Your task to perform on an android device: open app "Messenger Lite" (install if not already installed) Image 0: 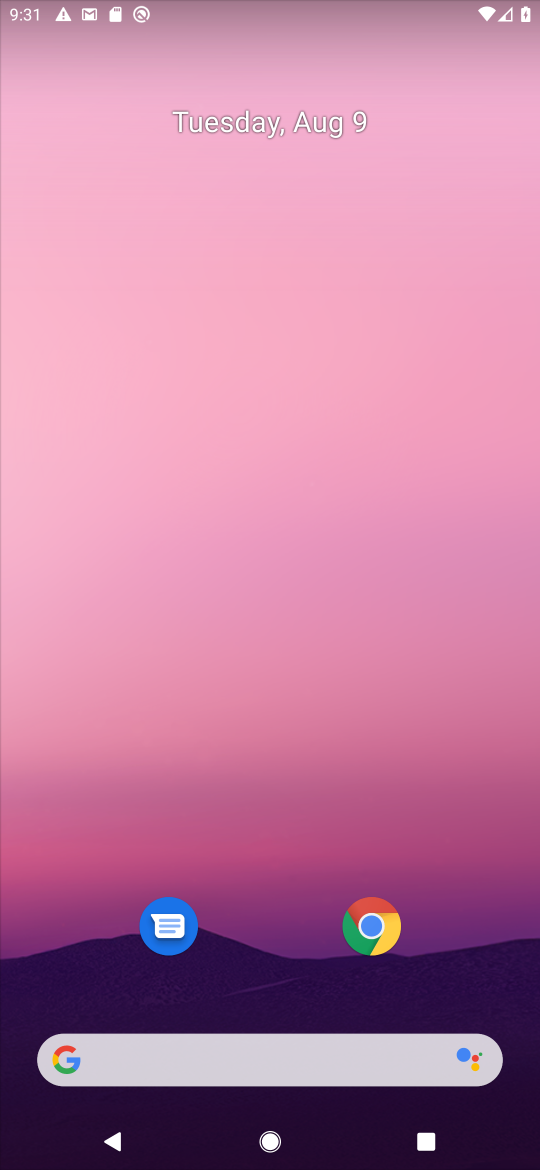
Step 0: drag from (240, 1005) to (338, 431)
Your task to perform on an android device: open app "Messenger Lite" (install if not already installed) Image 1: 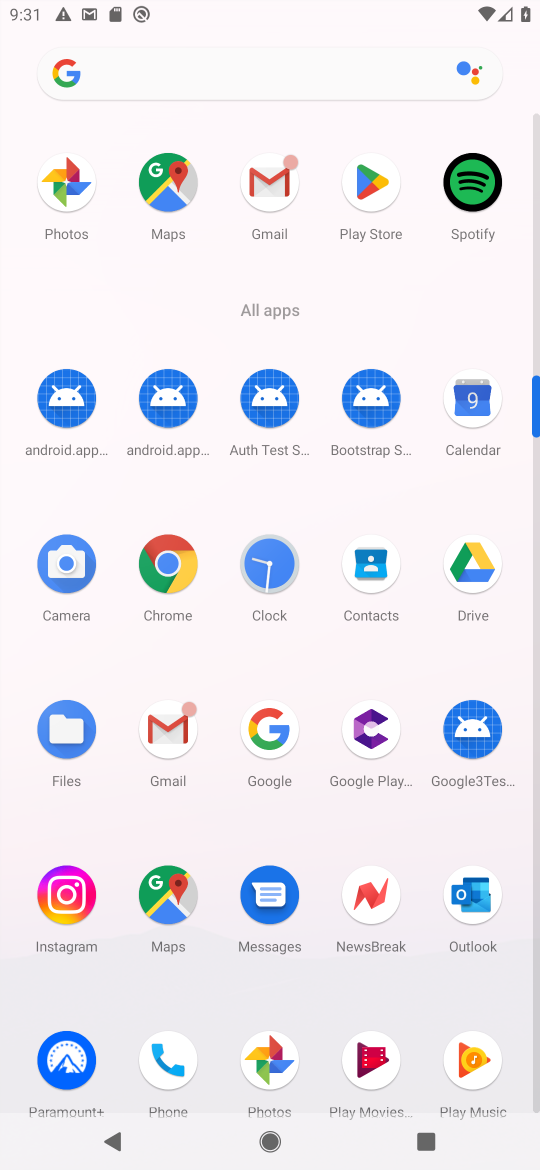
Step 1: click (369, 215)
Your task to perform on an android device: open app "Messenger Lite" (install if not already installed) Image 2: 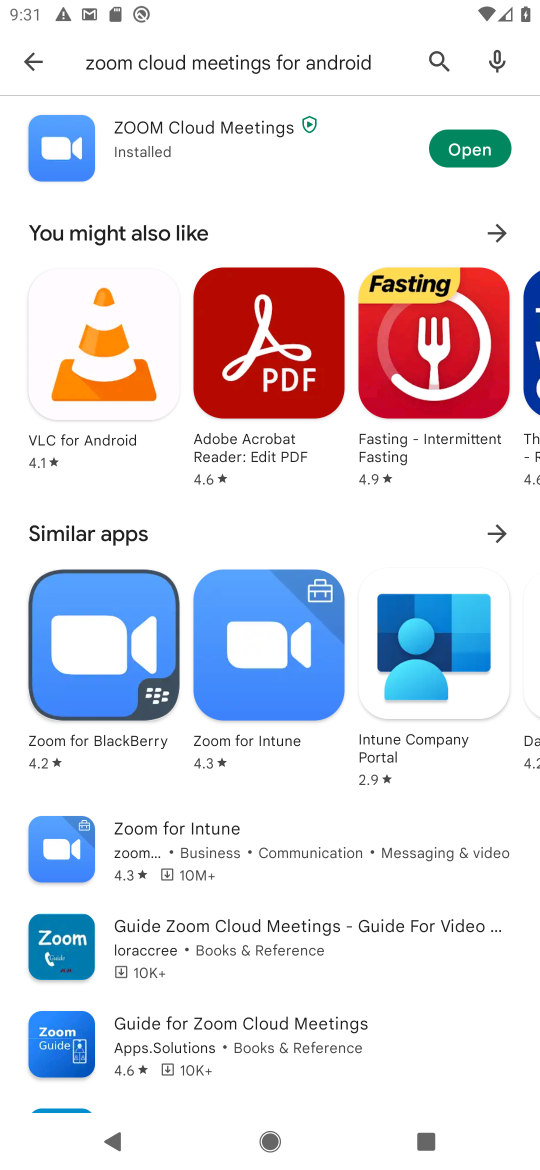
Step 2: click (252, 76)
Your task to perform on an android device: open app "Messenger Lite" (install if not already installed) Image 3: 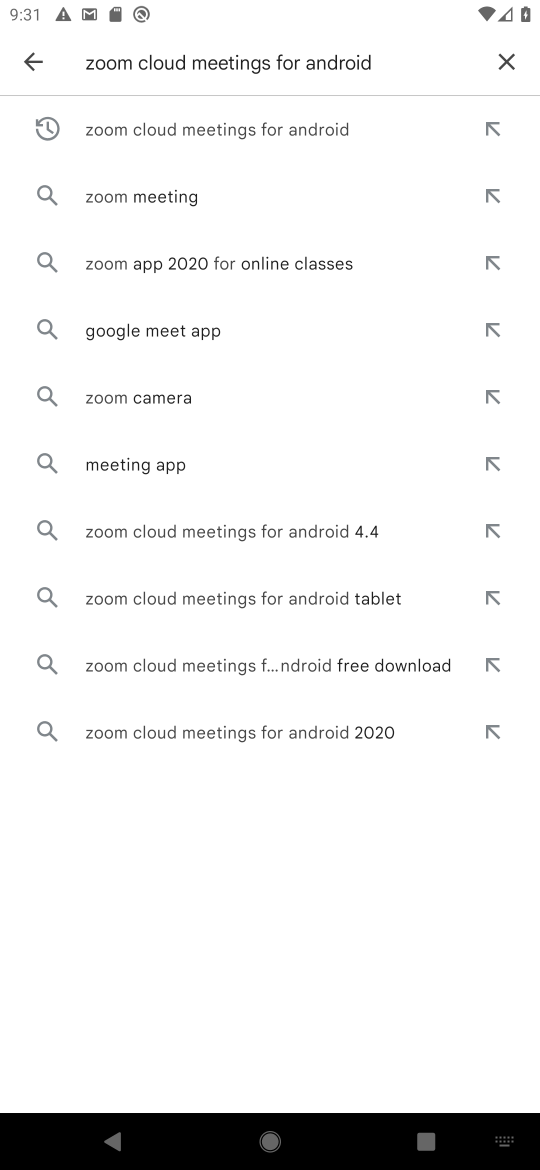
Step 3: click (487, 52)
Your task to perform on an android device: open app "Messenger Lite" (install if not already installed) Image 4: 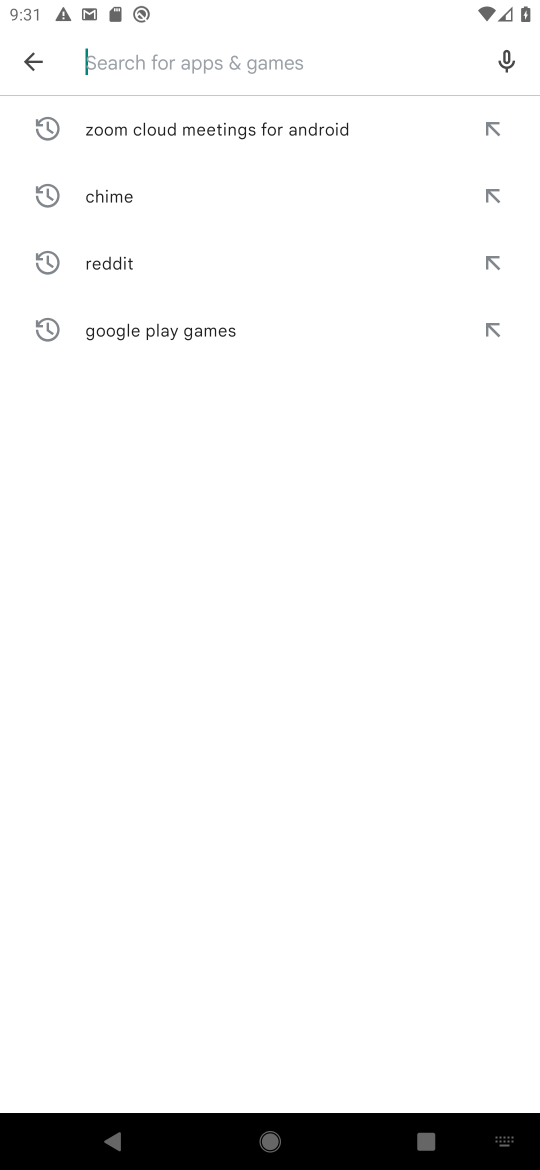
Step 4: type "Messenger Lite"
Your task to perform on an android device: open app "Messenger Lite" (install if not already installed) Image 5: 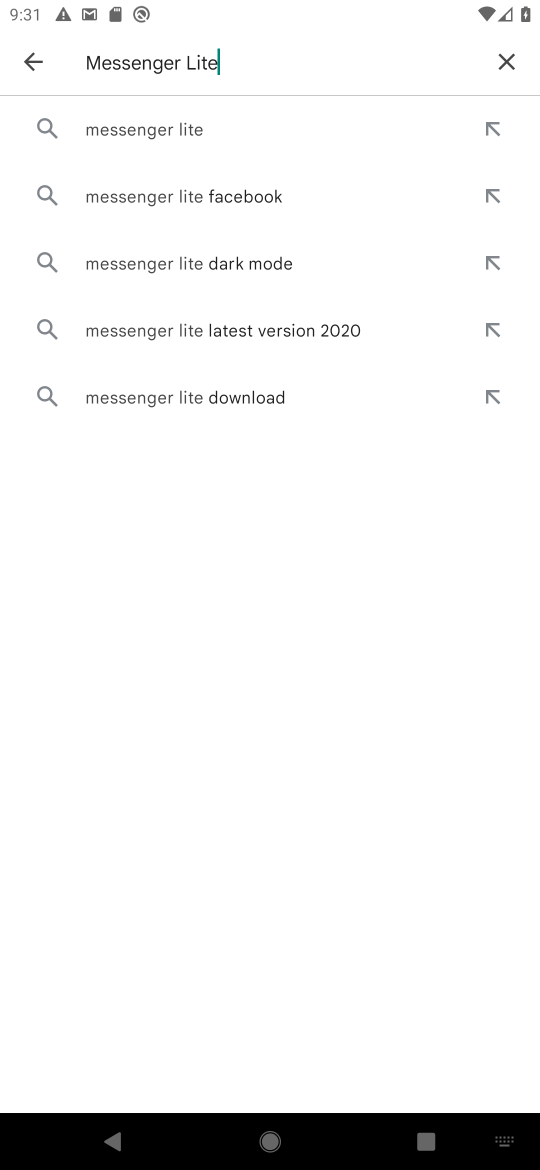
Step 5: click (174, 120)
Your task to perform on an android device: open app "Messenger Lite" (install if not already installed) Image 6: 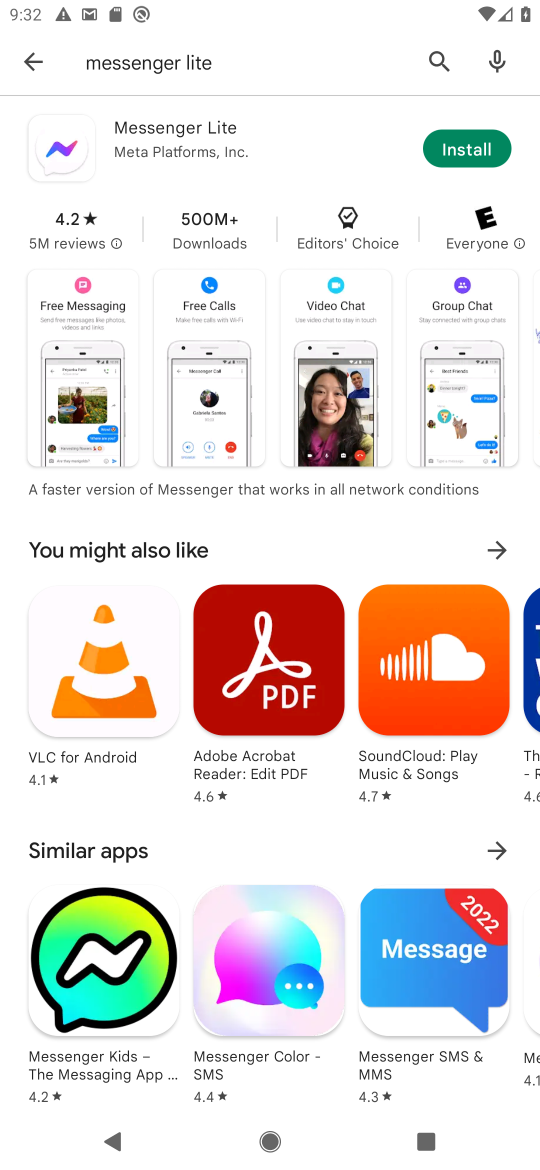
Step 6: click (467, 148)
Your task to perform on an android device: open app "Messenger Lite" (install if not already installed) Image 7: 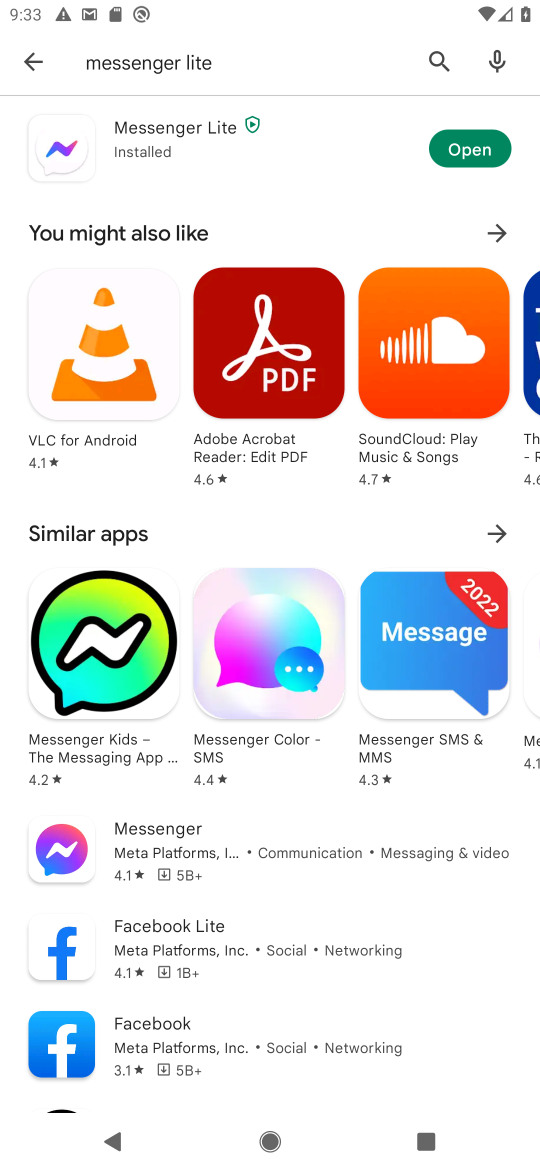
Step 7: click (463, 143)
Your task to perform on an android device: open app "Messenger Lite" (install if not already installed) Image 8: 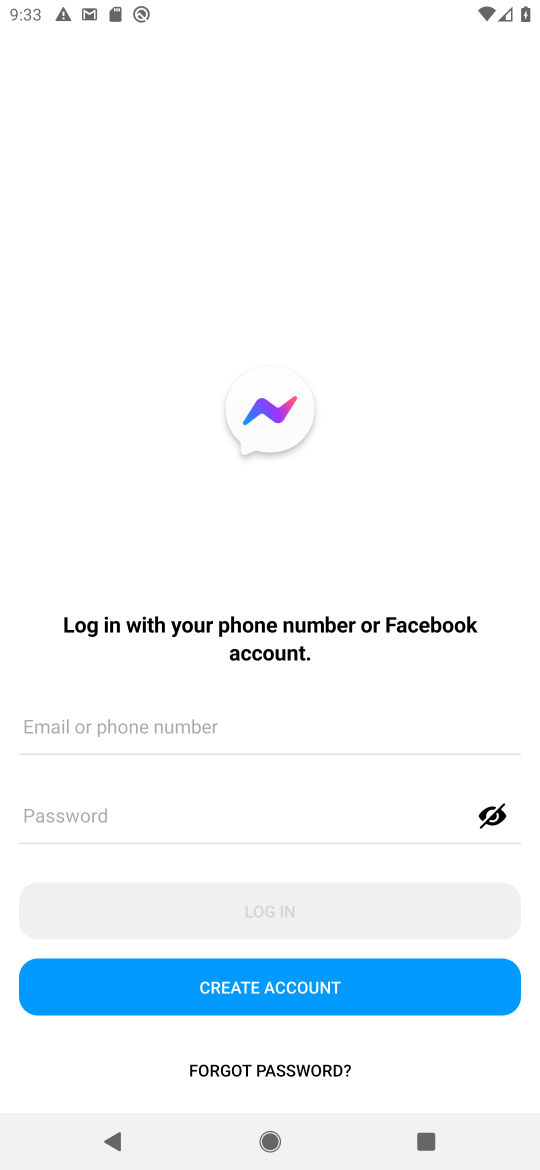
Step 8: task complete